Your task to perform on an android device: Search for sushi restaurants on Maps Image 0: 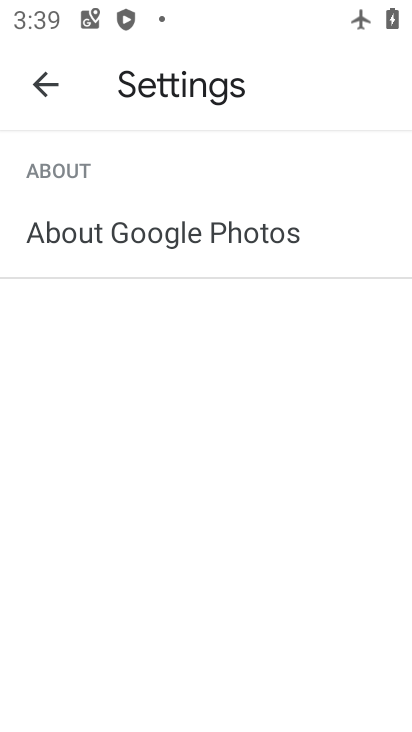
Step 0: drag from (352, 702) to (389, 140)
Your task to perform on an android device: Search for sushi restaurants on Maps Image 1: 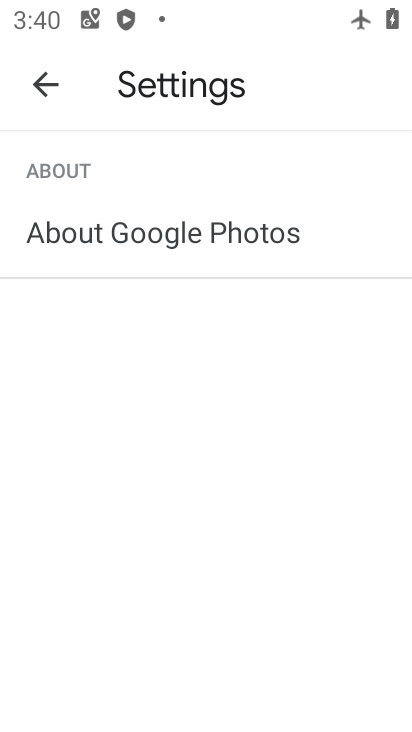
Step 1: click (39, 84)
Your task to perform on an android device: Search for sushi restaurants on Maps Image 2: 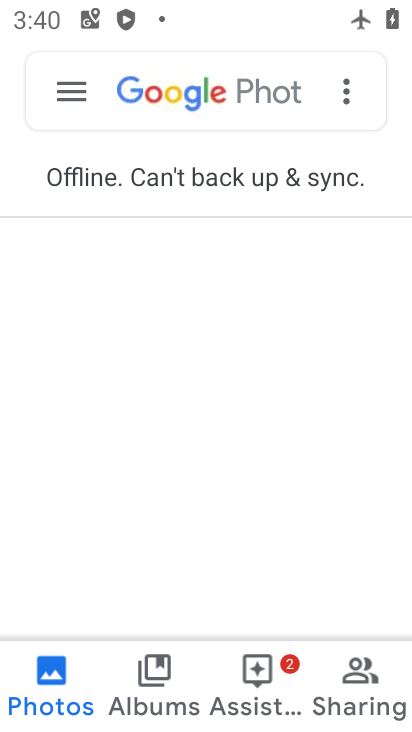
Step 2: click (37, 84)
Your task to perform on an android device: Search for sushi restaurants on Maps Image 3: 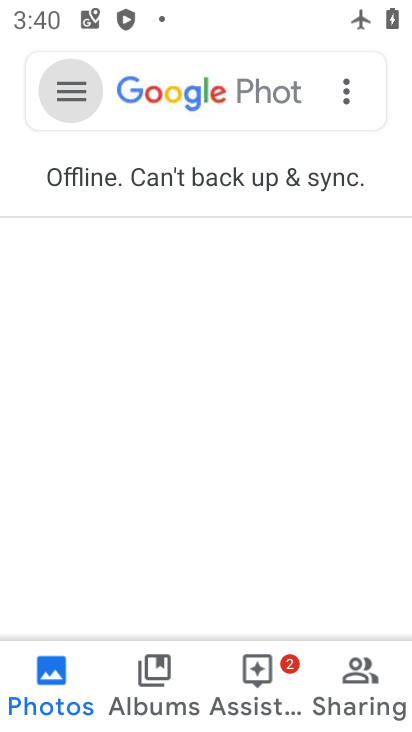
Step 3: press back button
Your task to perform on an android device: Search for sushi restaurants on Maps Image 4: 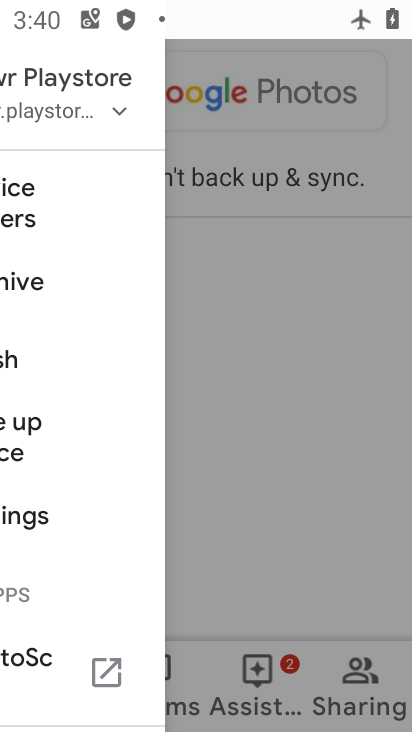
Step 4: press back button
Your task to perform on an android device: Search for sushi restaurants on Maps Image 5: 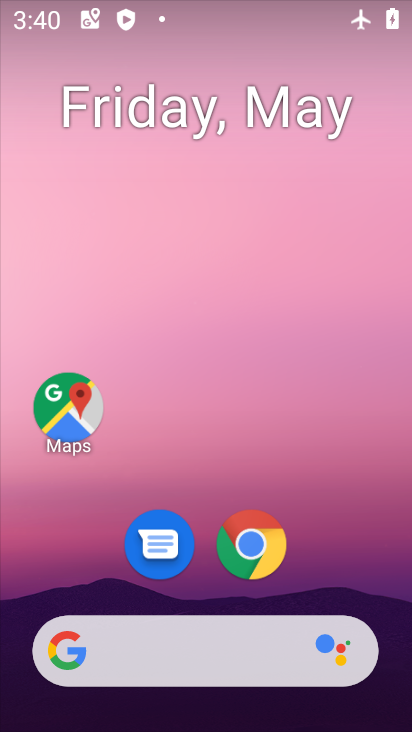
Step 5: drag from (361, 601) to (100, 0)
Your task to perform on an android device: Search for sushi restaurants on Maps Image 6: 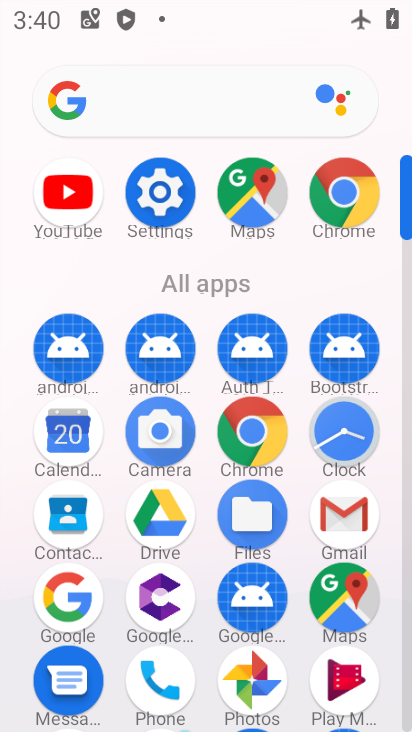
Step 6: click (240, 207)
Your task to perform on an android device: Search for sushi restaurants on Maps Image 7: 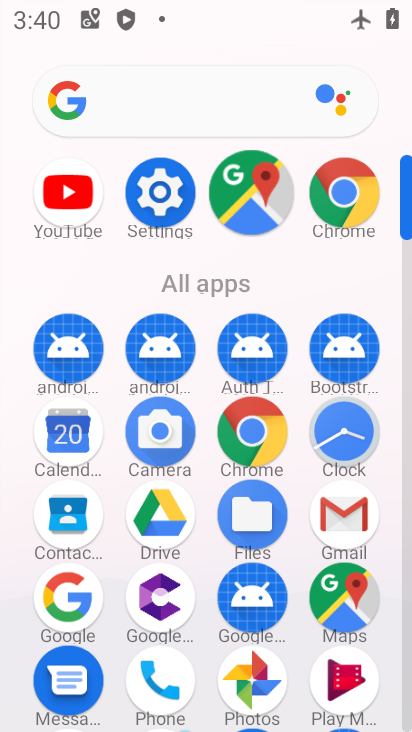
Step 7: click (241, 205)
Your task to perform on an android device: Search for sushi restaurants on Maps Image 8: 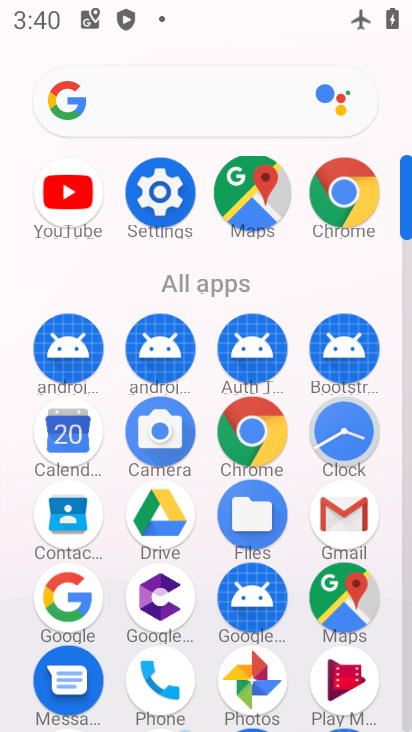
Step 8: click (243, 205)
Your task to perform on an android device: Search for sushi restaurants on Maps Image 9: 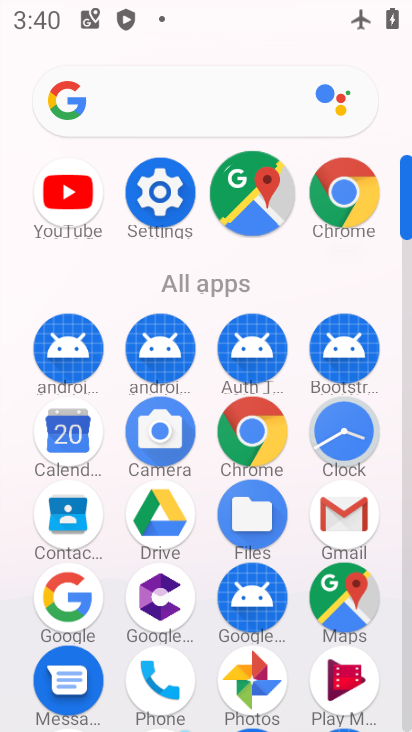
Step 9: click (244, 205)
Your task to perform on an android device: Search for sushi restaurants on Maps Image 10: 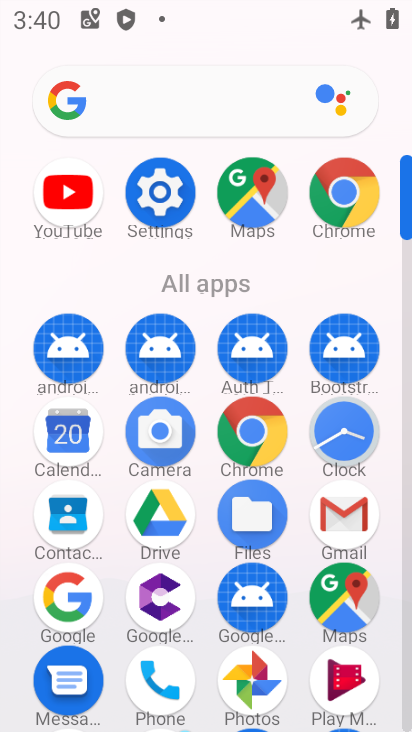
Step 10: click (245, 205)
Your task to perform on an android device: Search for sushi restaurants on Maps Image 11: 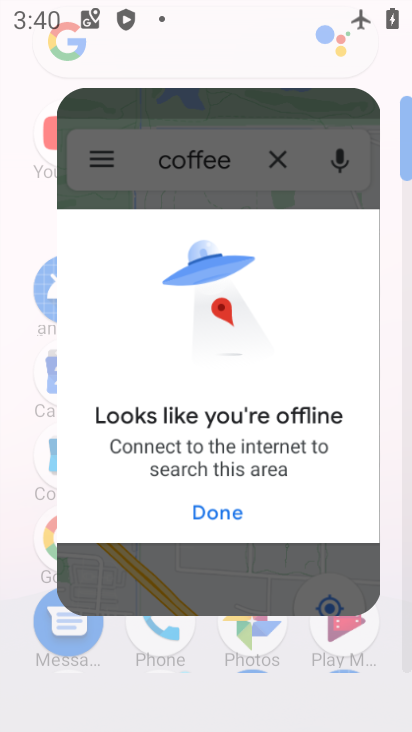
Step 11: click (245, 205)
Your task to perform on an android device: Search for sushi restaurants on Maps Image 12: 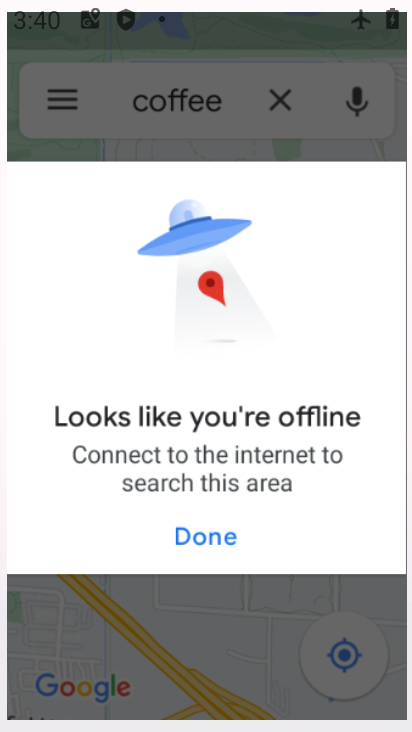
Step 12: click (245, 205)
Your task to perform on an android device: Search for sushi restaurants on Maps Image 13: 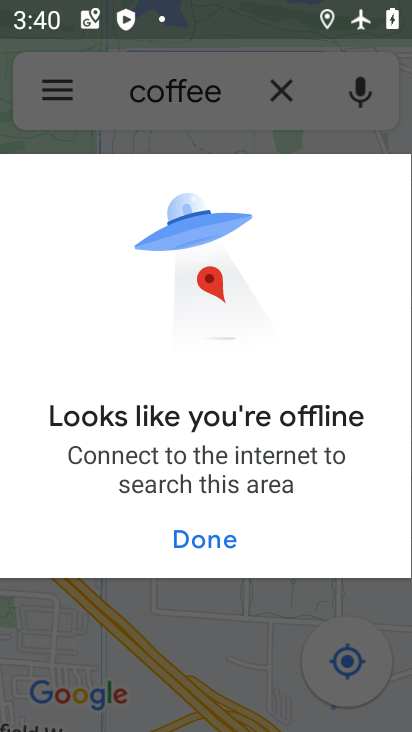
Step 13: task complete